Your task to perform on an android device: open app "Walmart Shopping & Grocery" (install if not already installed) and enter user name: "Hans@icloud.com" and password: "executing" Image 0: 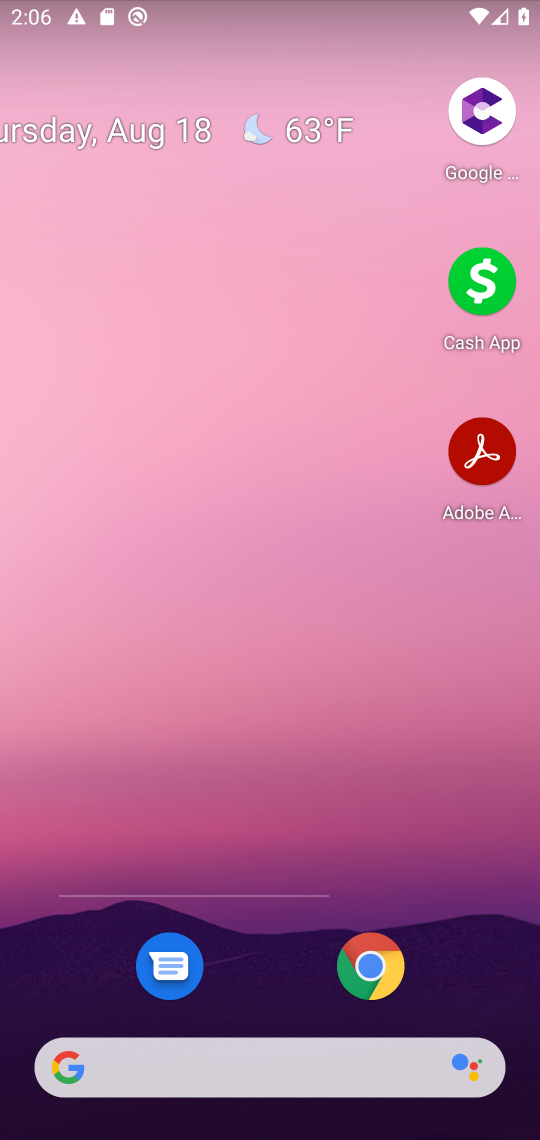
Step 0: press home button
Your task to perform on an android device: open app "Walmart Shopping & Grocery" (install if not already installed) and enter user name: "Hans@icloud.com" and password: "executing" Image 1: 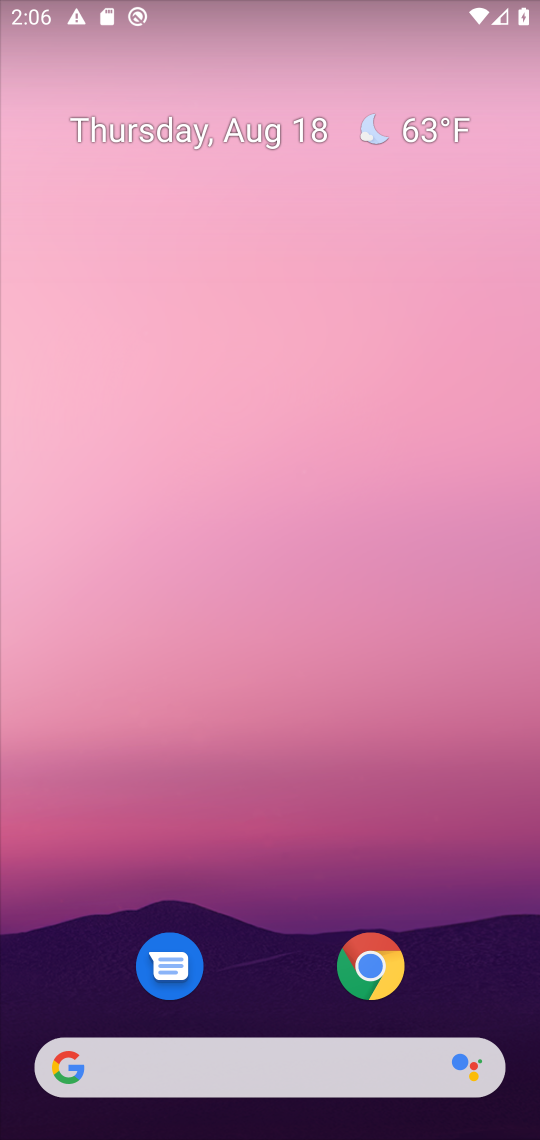
Step 1: drag from (253, 1014) to (281, 292)
Your task to perform on an android device: open app "Walmart Shopping & Grocery" (install if not already installed) and enter user name: "Hans@icloud.com" and password: "executing" Image 2: 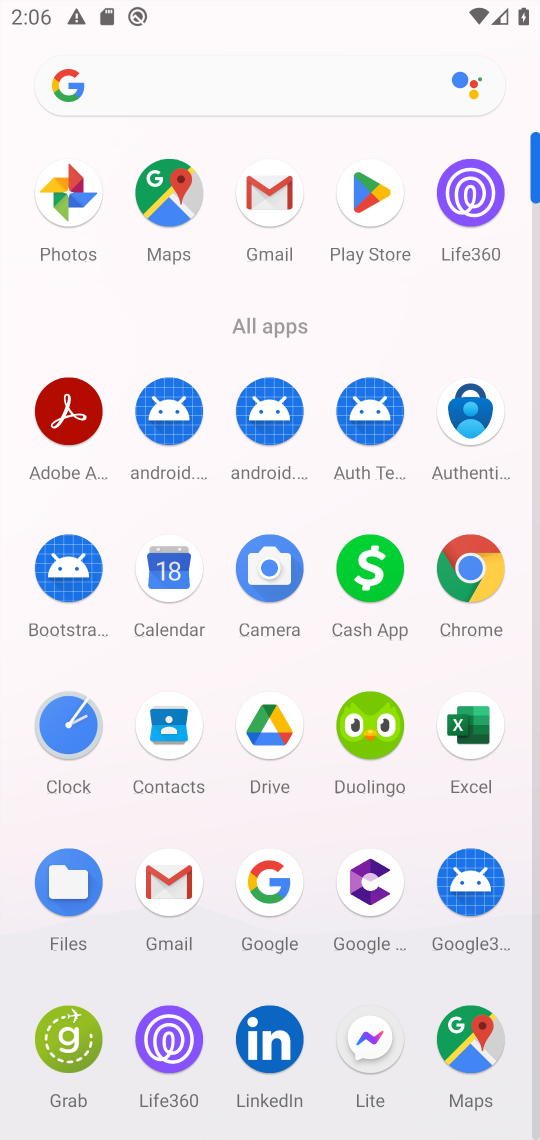
Step 2: click (358, 175)
Your task to perform on an android device: open app "Walmart Shopping & Grocery" (install if not already installed) and enter user name: "Hans@icloud.com" and password: "executing" Image 3: 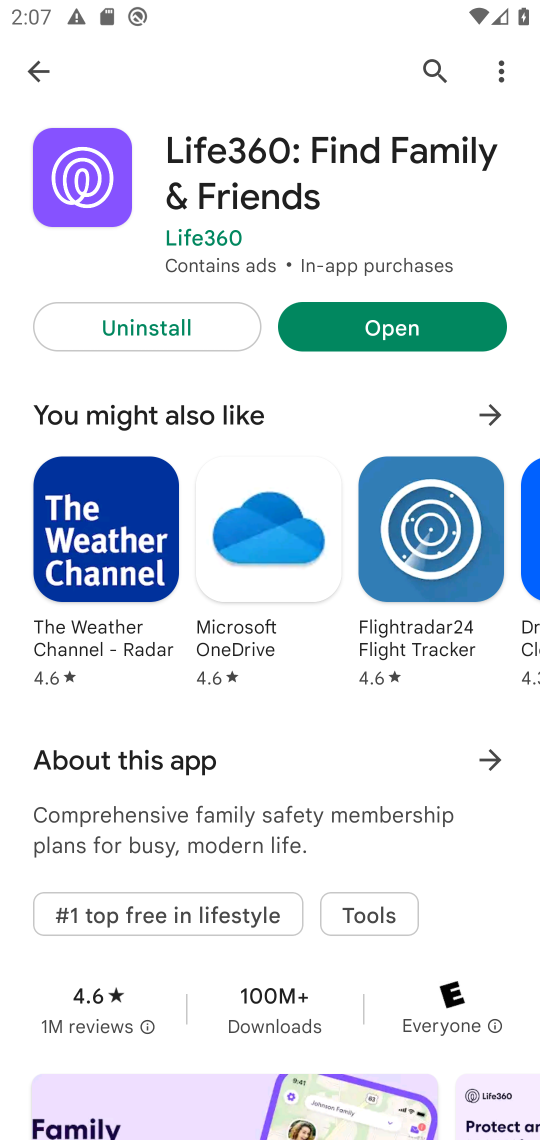
Step 3: click (433, 67)
Your task to perform on an android device: open app "Walmart Shopping & Grocery" (install if not already installed) and enter user name: "Hans@icloud.com" and password: "executing" Image 4: 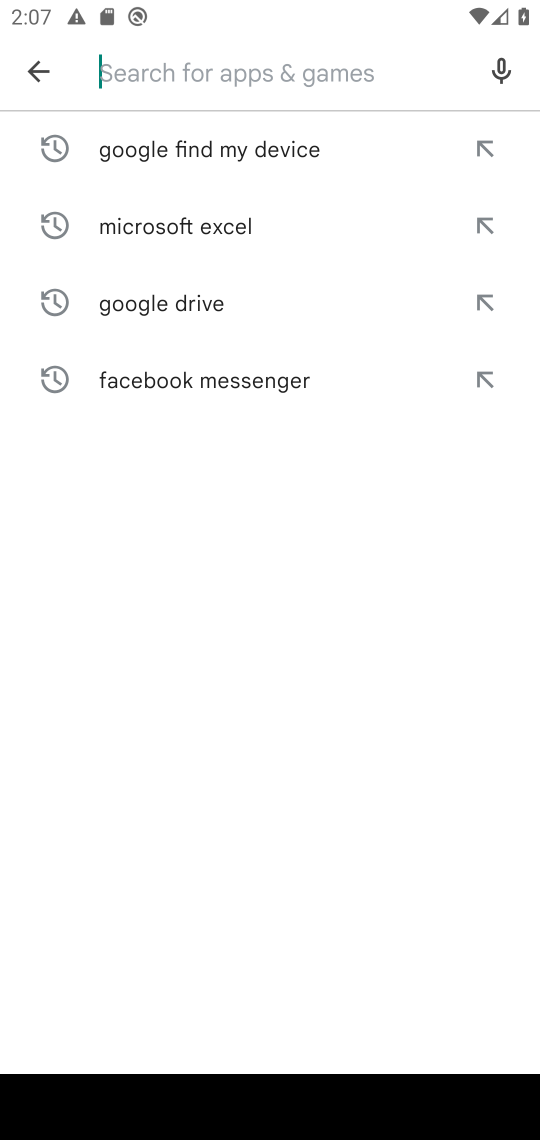
Step 4: type "Walmart Shopping & Grocery"
Your task to perform on an android device: open app "Walmart Shopping & Grocery" (install if not already installed) and enter user name: "Hans@icloud.com" and password: "executing" Image 5: 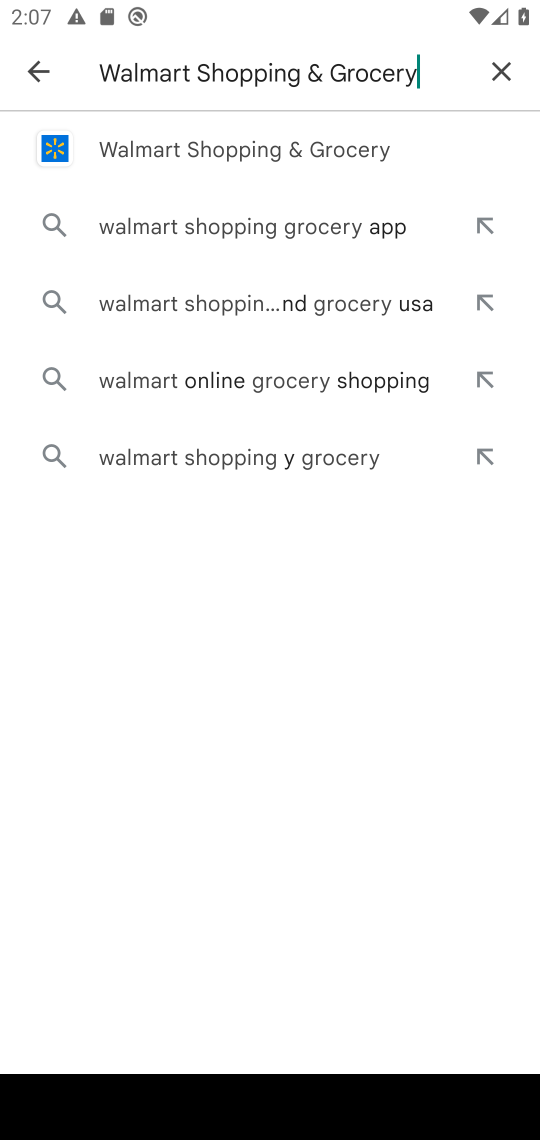
Step 5: click (208, 151)
Your task to perform on an android device: open app "Walmart Shopping & Grocery" (install if not already installed) and enter user name: "Hans@icloud.com" and password: "executing" Image 6: 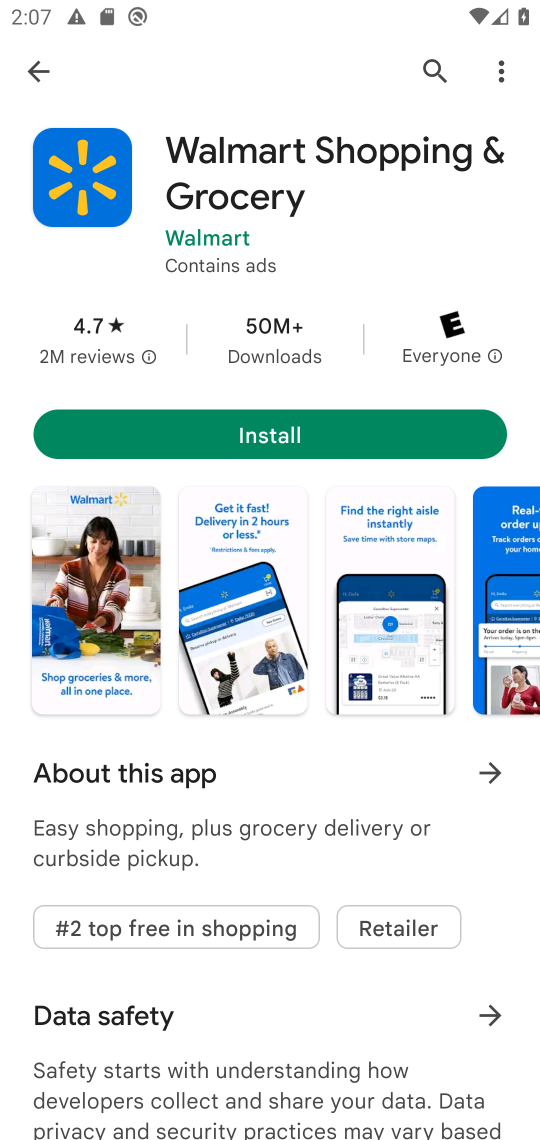
Step 6: click (256, 441)
Your task to perform on an android device: open app "Walmart Shopping & Grocery" (install if not already installed) and enter user name: "Hans@icloud.com" and password: "executing" Image 7: 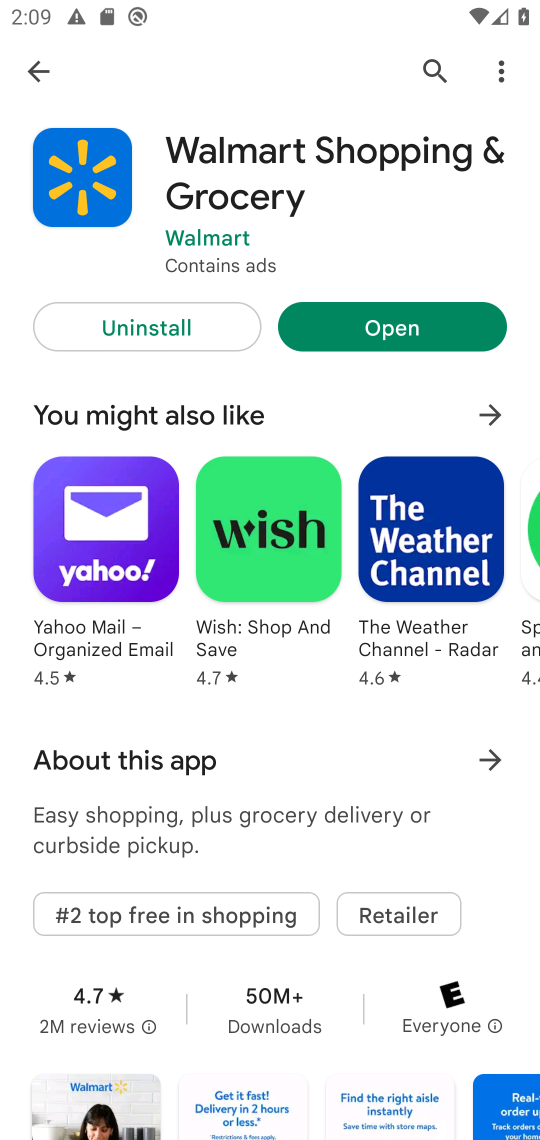
Step 7: click (382, 328)
Your task to perform on an android device: open app "Walmart Shopping & Grocery" (install if not already installed) and enter user name: "Hans@icloud.com" and password: "executing" Image 8: 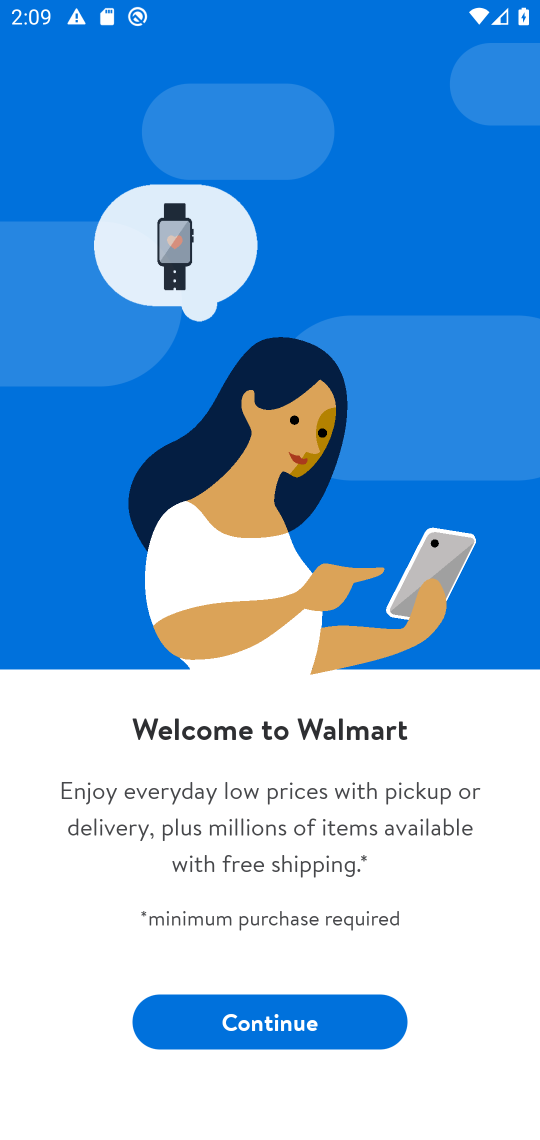
Step 8: click (273, 1019)
Your task to perform on an android device: open app "Walmart Shopping & Grocery" (install if not already installed) and enter user name: "Hans@icloud.com" and password: "executing" Image 9: 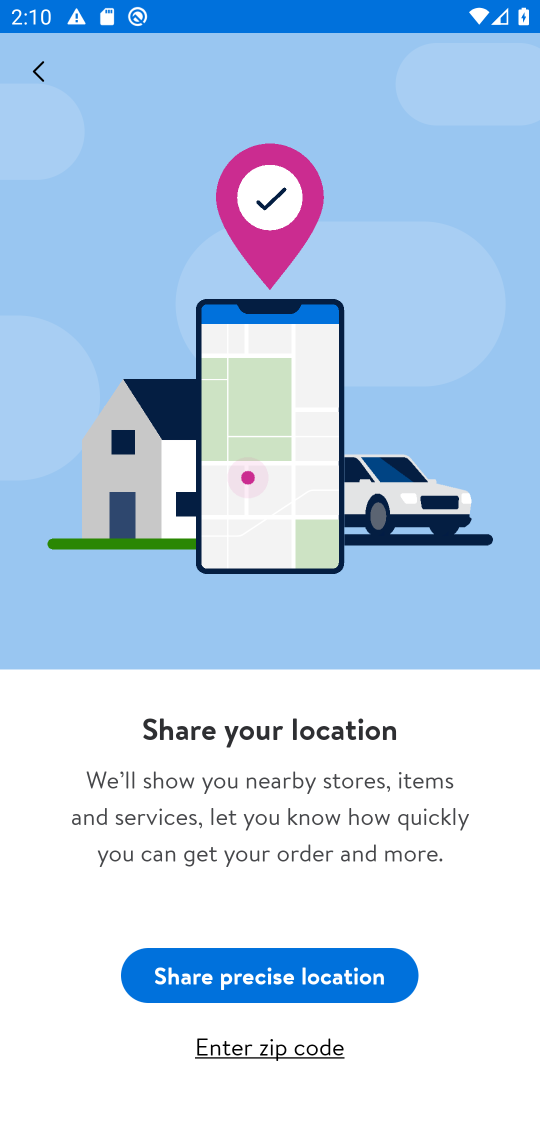
Step 9: click (265, 976)
Your task to perform on an android device: open app "Walmart Shopping & Grocery" (install if not already installed) and enter user name: "Hans@icloud.com" and password: "executing" Image 10: 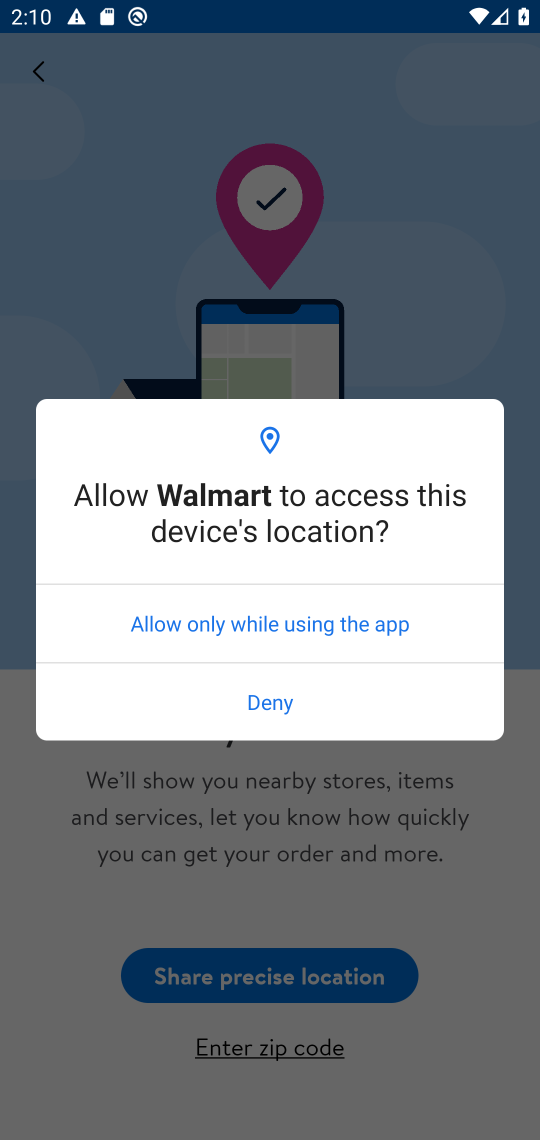
Step 10: click (268, 609)
Your task to perform on an android device: open app "Walmart Shopping & Grocery" (install if not already installed) and enter user name: "Hans@icloud.com" and password: "executing" Image 11: 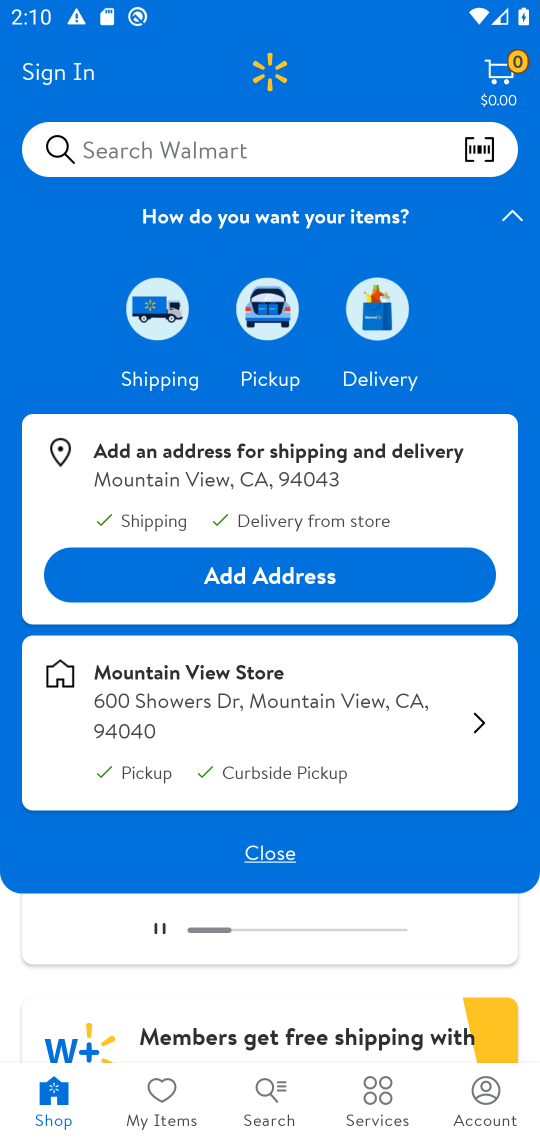
Step 11: click (63, 54)
Your task to perform on an android device: open app "Walmart Shopping & Grocery" (install if not already installed) and enter user name: "Hans@icloud.com" and password: "executing" Image 12: 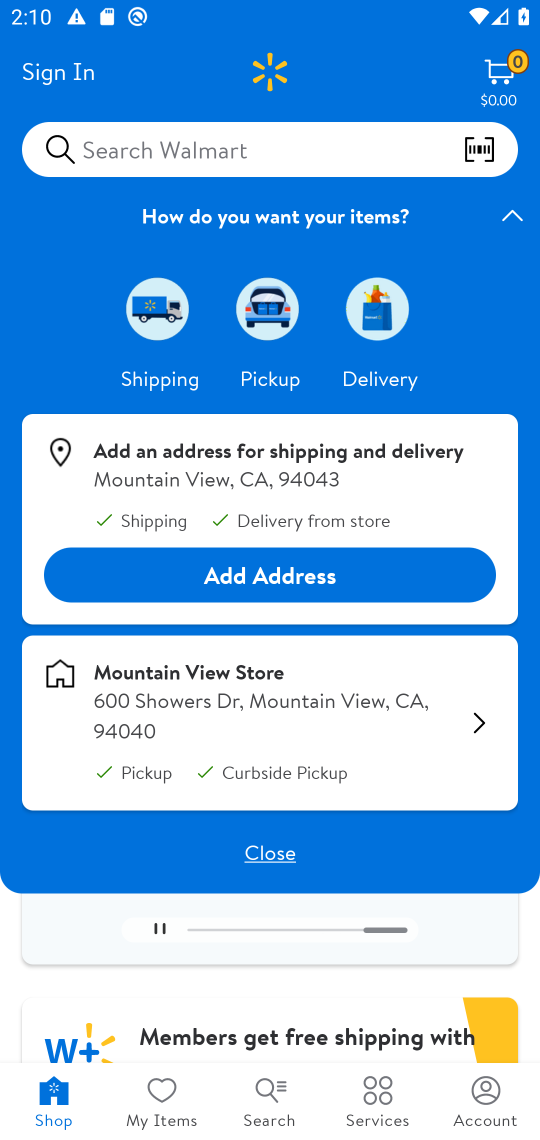
Step 12: click (42, 75)
Your task to perform on an android device: open app "Walmart Shopping & Grocery" (install if not already installed) and enter user name: "Hans@icloud.com" and password: "executing" Image 13: 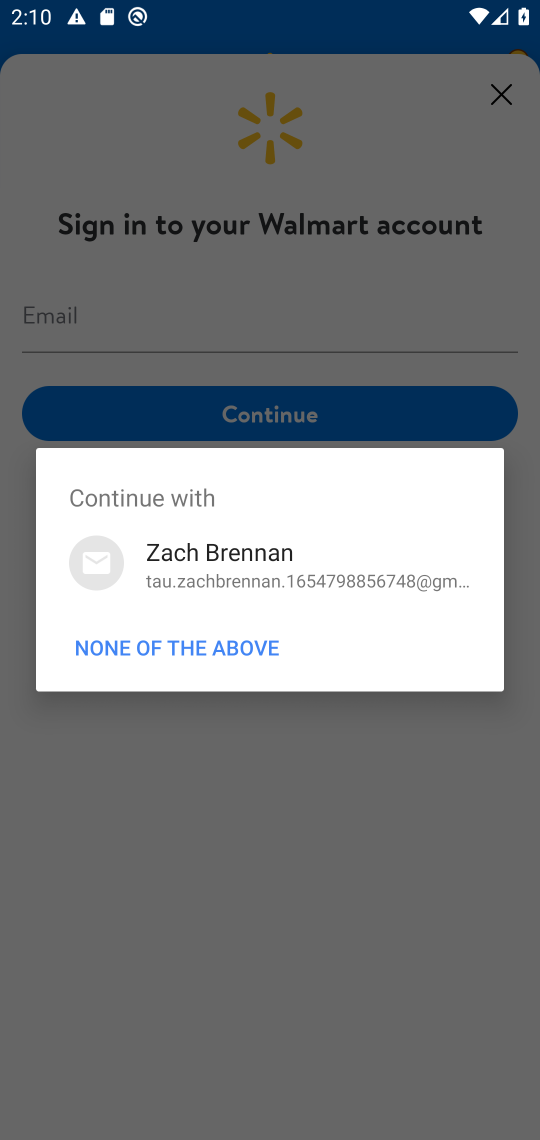
Step 13: click (153, 330)
Your task to perform on an android device: open app "Walmart Shopping & Grocery" (install if not already installed) and enter user name: "Hans@icloud.com" and password: "executing" Image 14: 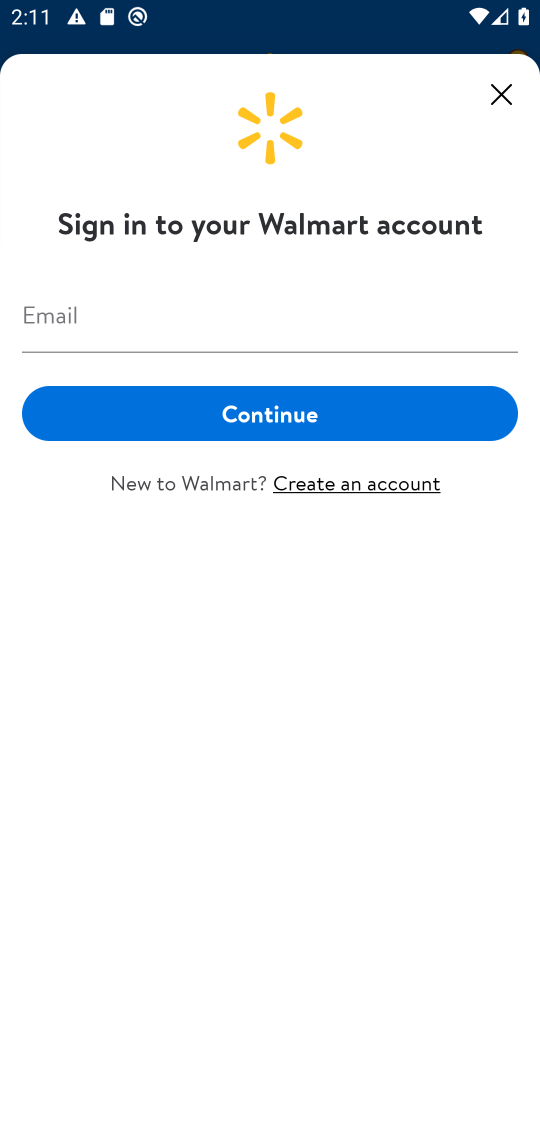
Step 14: click (133, 312)
Your task to perform on an android device: open app "Walmart Shopping & Grocery" (install if not already installed) and enter user name: "Hans@icloud.com" and password: "executing" Image 15: 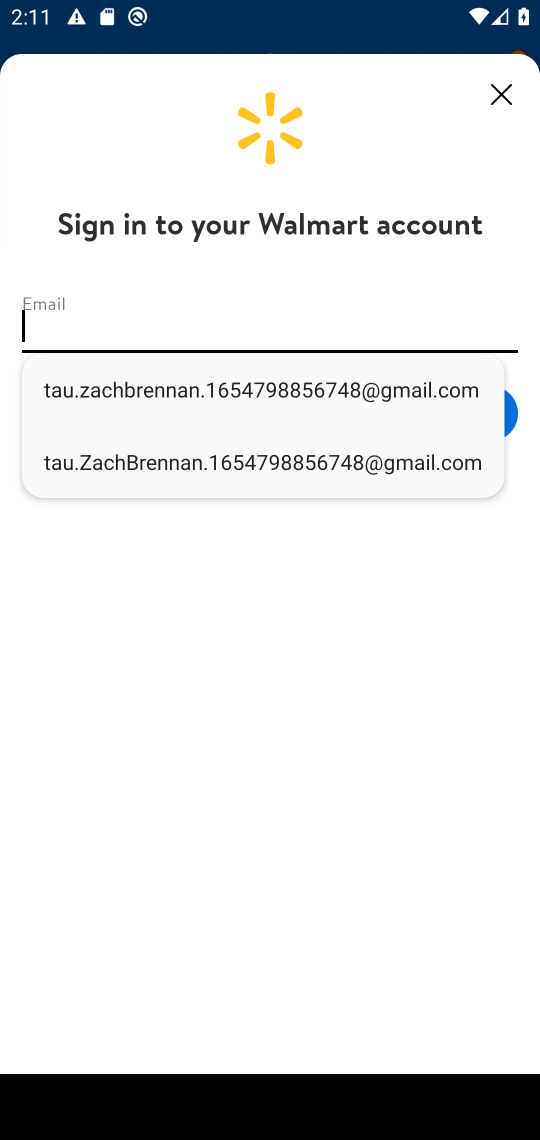
Step 15: type "Hans@icloud.com"
Your task to perform on an android device: open app "Walmart Shopping & Grocery" (install if not already installed) and enter user name: "Hans@icloud.com" and password: "executing" Image 16: 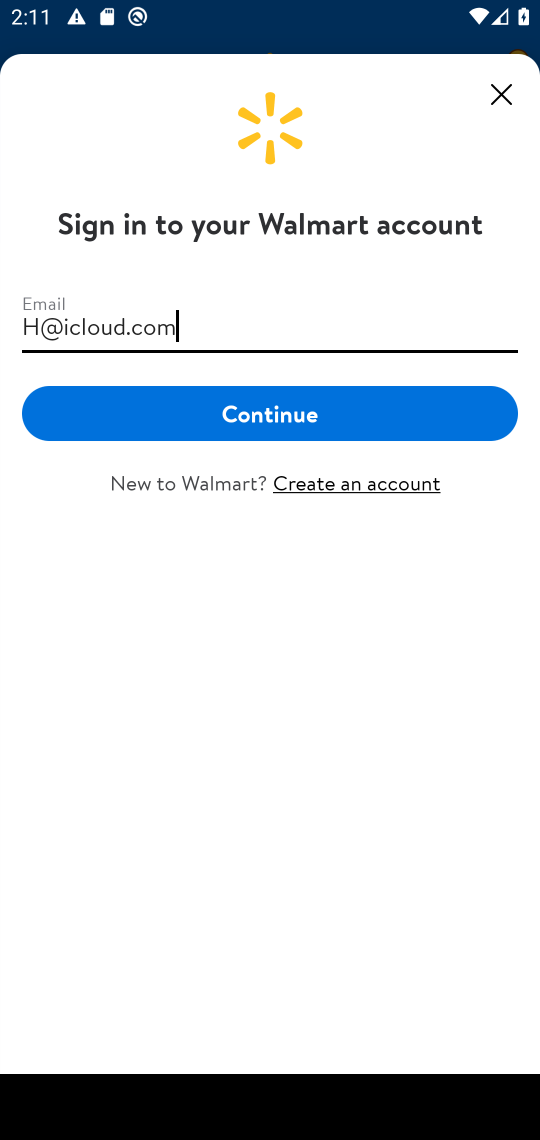
Step 16: type ""
Your task to perform on an android device: open app "Walmart Shopping & Grocery" (install if not already installed) and enter user name: "Hans@icloud.com" and password: "executing" Image 17: 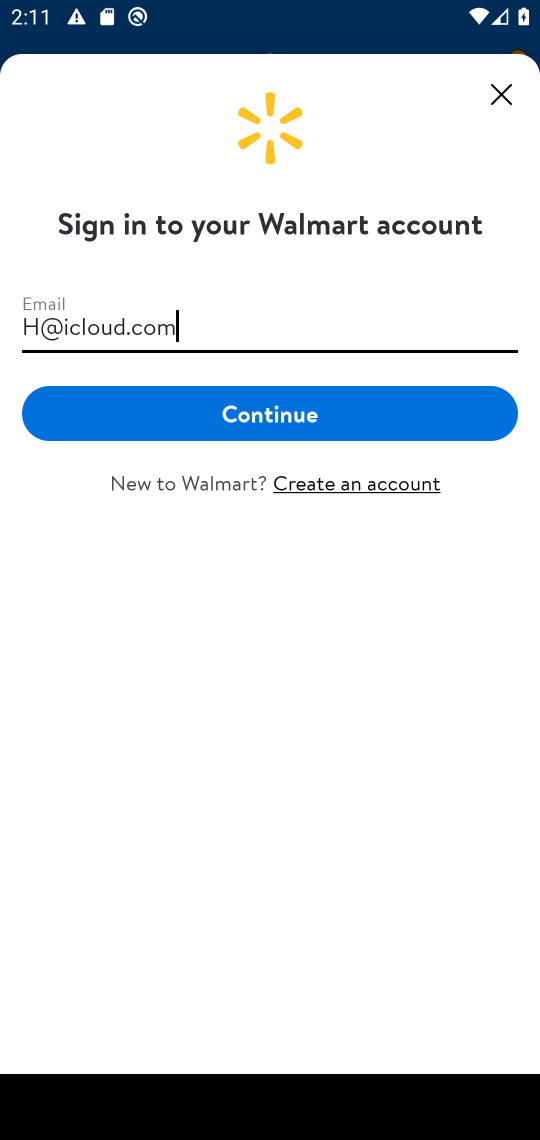
Step 17: click (37, 316)
Your task to perform on an android device: open app "Walmart Shopping & Grocery" (install if not already installed) and enter user name: "Hans@icloud.com" and password: "executing" Image 18: 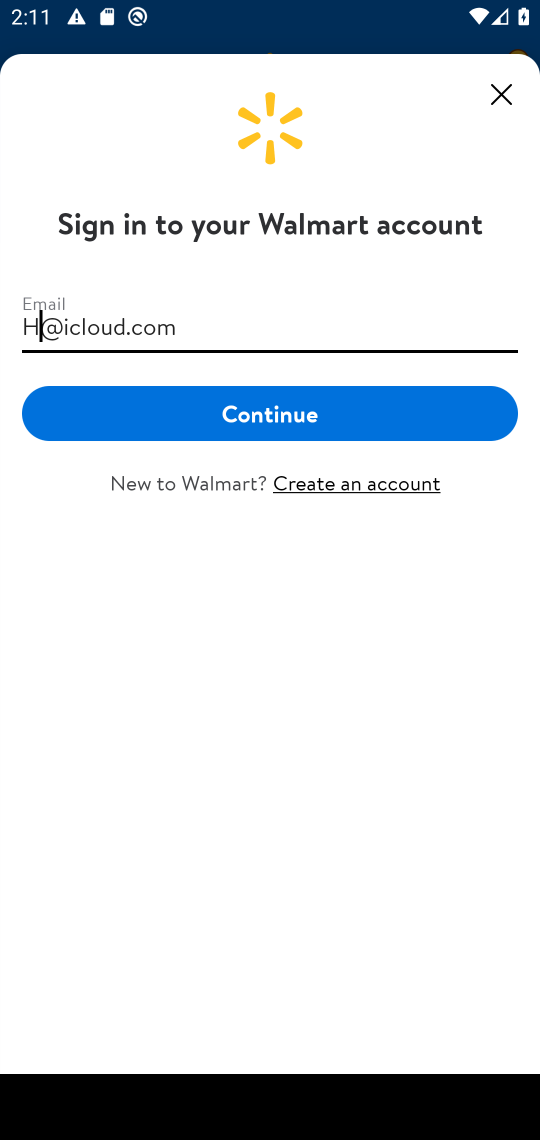
Step 18: type "ans"
Your task to perform on an android device: open app "Walmart Shopping & Grocery" (install if not already installed) and enter user name: "Hans@icloud.com" and password: "executing" Image 19: 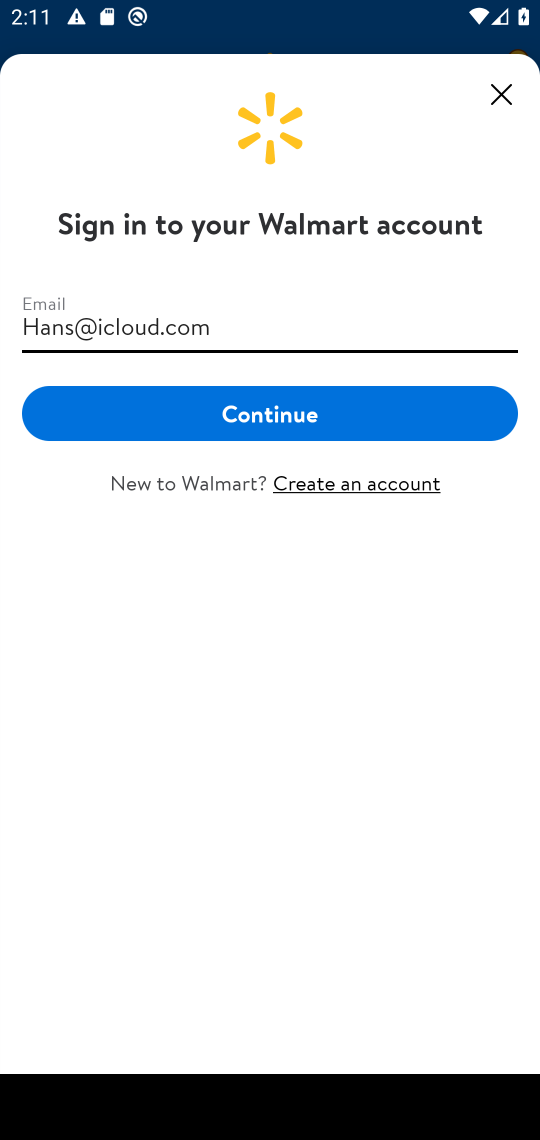
Step 19: click (306, 407)
Your task to perform on an android device: open app "Walmart Shopping & Grocery" (install if not already installed) and enter user name: "Hans@icloud.com" and password: "executing" Image 20: 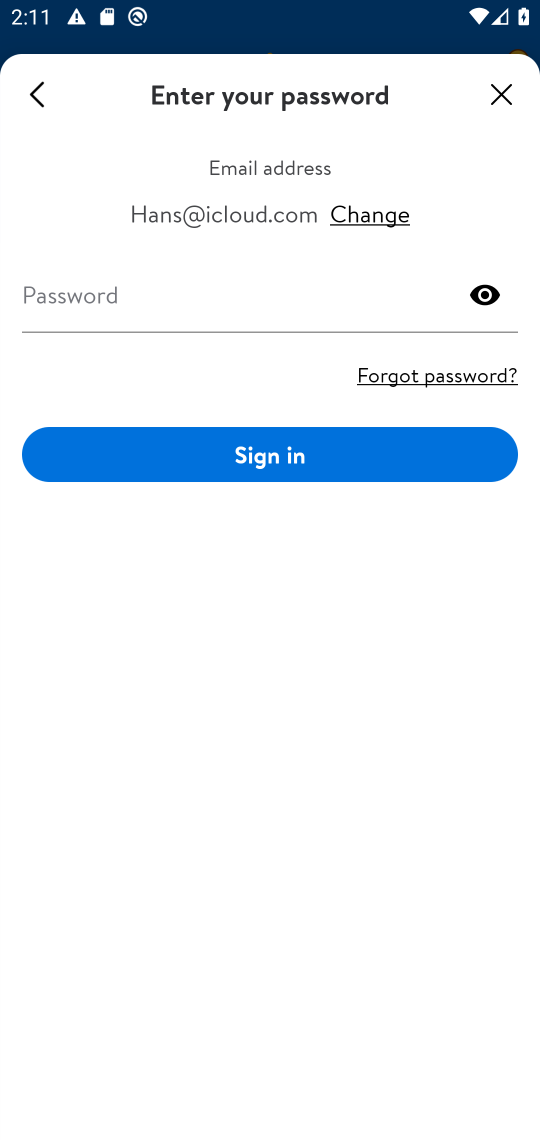
Step 20: click (201, 293)
Your task to perform on an android device: open app "Walmart Shopping & Grocery" (install if not already installed) and enter user name: "Hans@icloud.com" and password: "executing" Image 21: 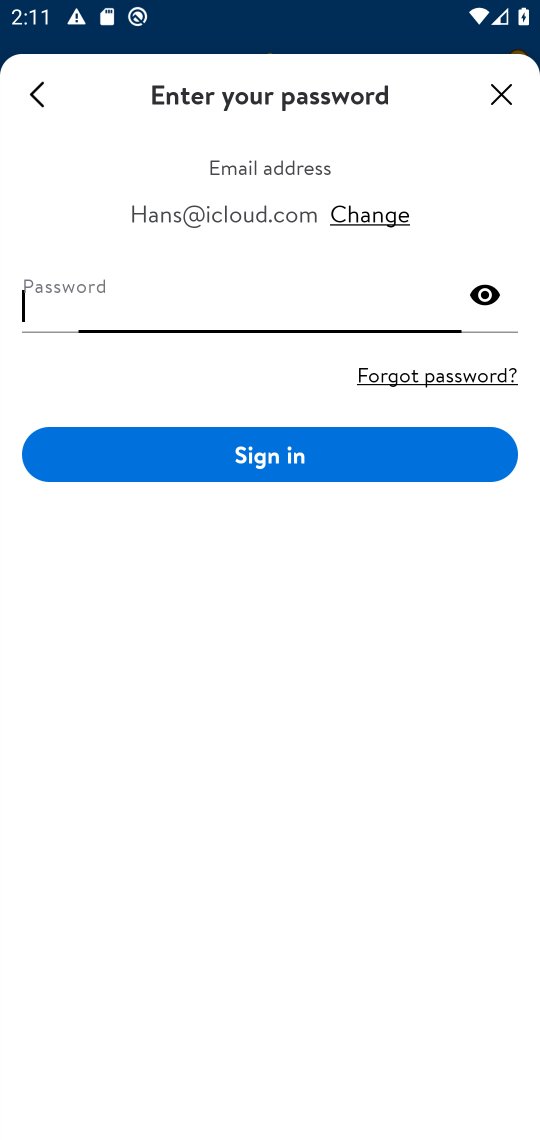
Step 21: click (75, 283)
Your task to perform on an android device: open app "Walmart Shopping & Grocery" (install if not already installed) and enter user name: "Hans@icloud.com" and password: "executing" Image 22: 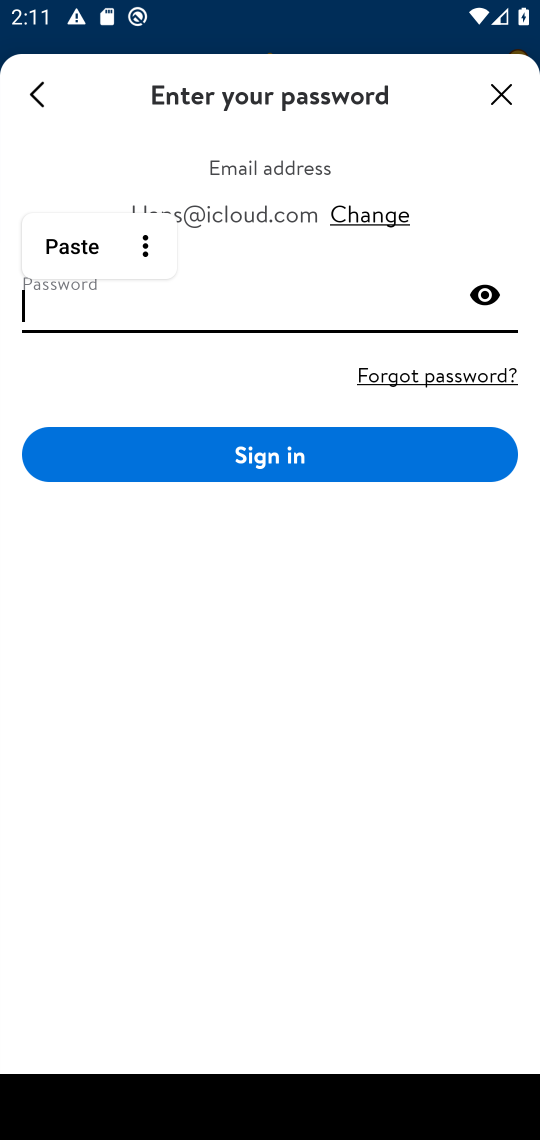
Step 22: type "executing"
Your task to perform on an android device: open app "Walmart Shopping & Grocery" (install if not already installed) and enter user name: "Hans@icloud.com" and password: "executing" Image 23: 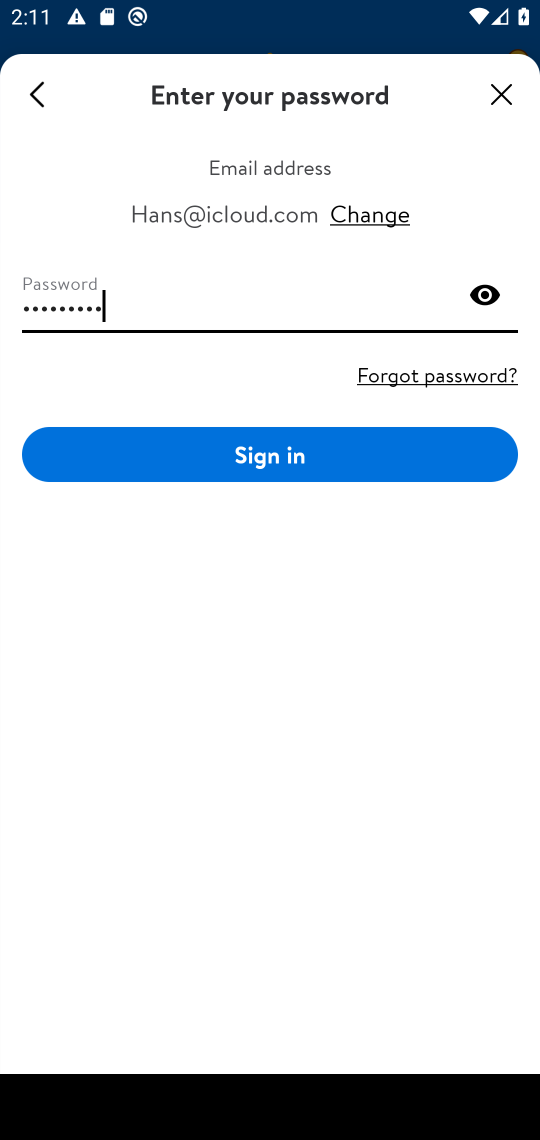
Step 23: click (290, 467)
Your task to perform on an android device: open app "Walmart Shopping & Grocery" (install if not already installed) and enter user name: "Hans@icloud.com" and password: "executing" Image 24: 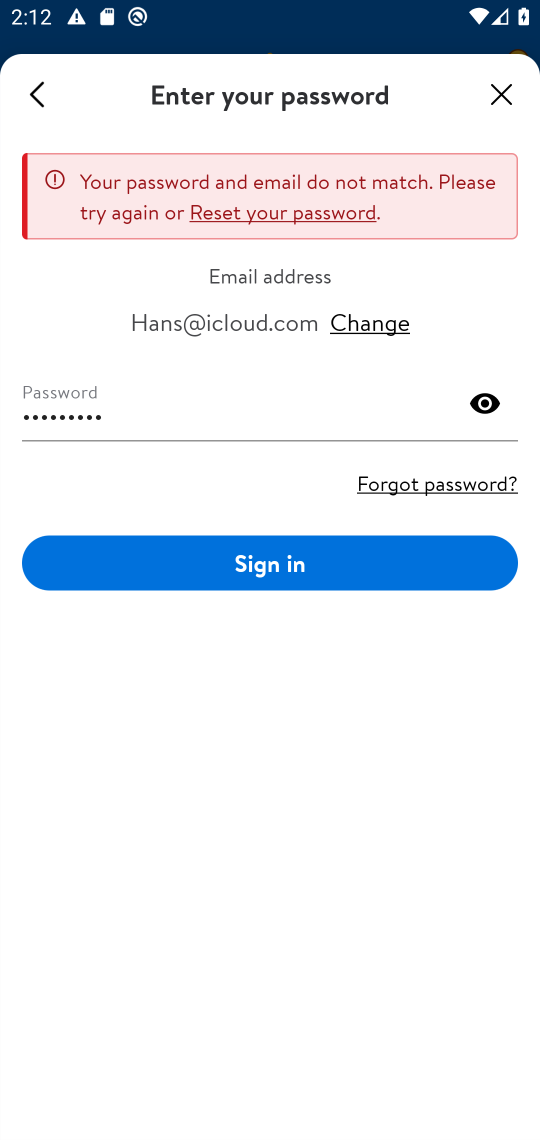
Step 24: task complete